Your task to perform on an android device: Open CNN.com Image 0: 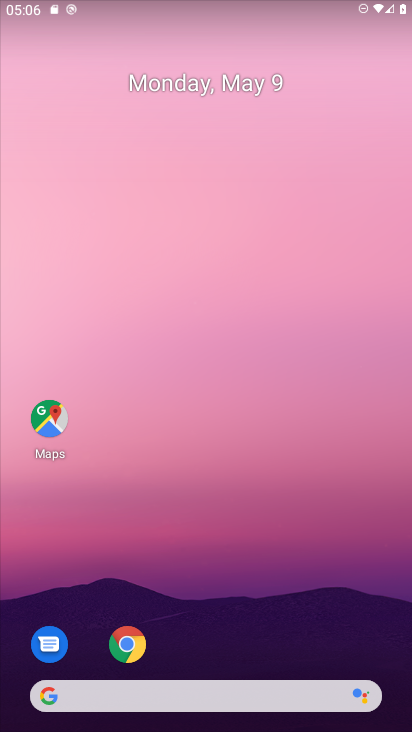
Step 0: click (127, 641)
Your task to perform on an android device: Open CNN.com Image 1: 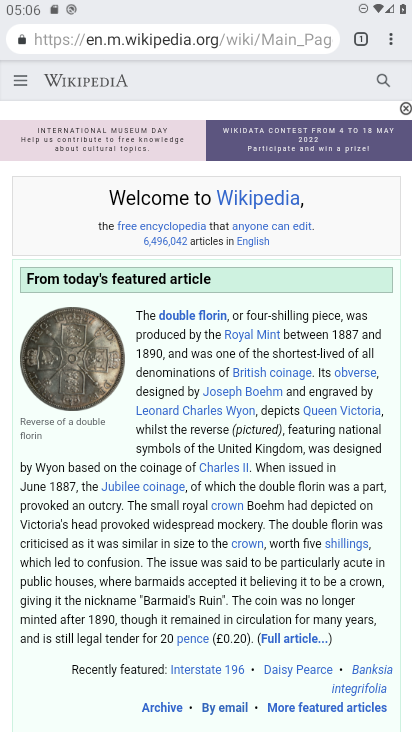
Step 1: click (291, 41)
Your task to perform on an android device: Open CNN.com Image 2: 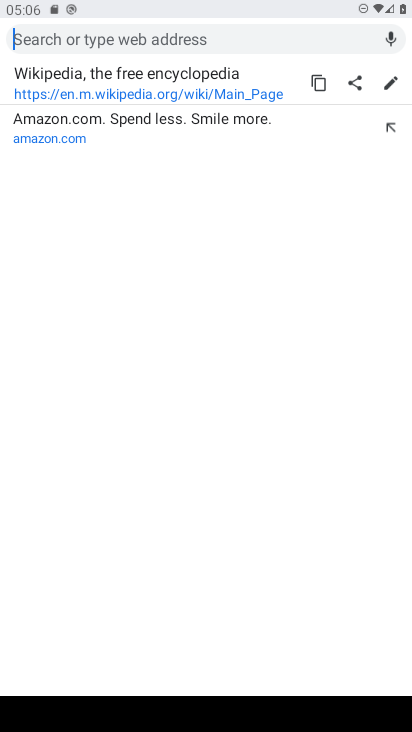
Step 2: type "CNN.com"
Your task to perform on an android device: Open CNN.com Image 3: 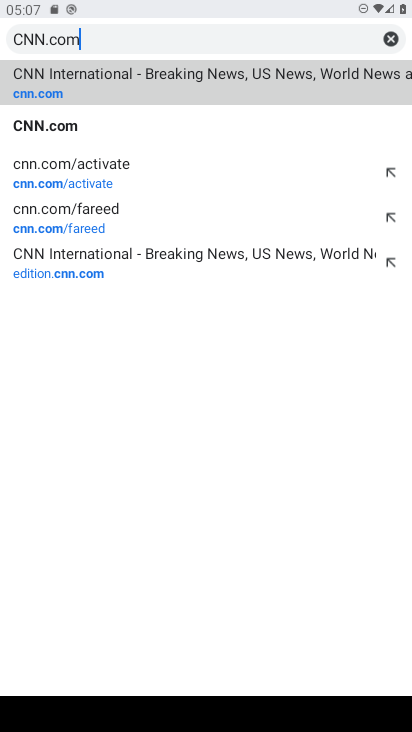
Step 3: click (68, 126)
Your task to perform on an android device: Open CNN.com Image 4: 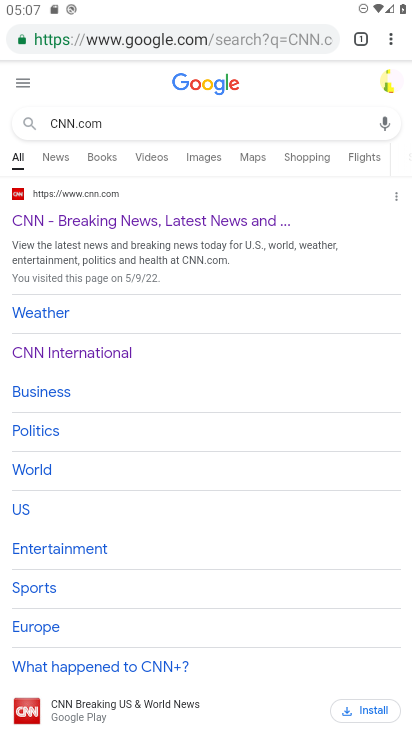
Step 4: click (28, 216)
Your task to perform on an android device: Open CNN.com Image 5: 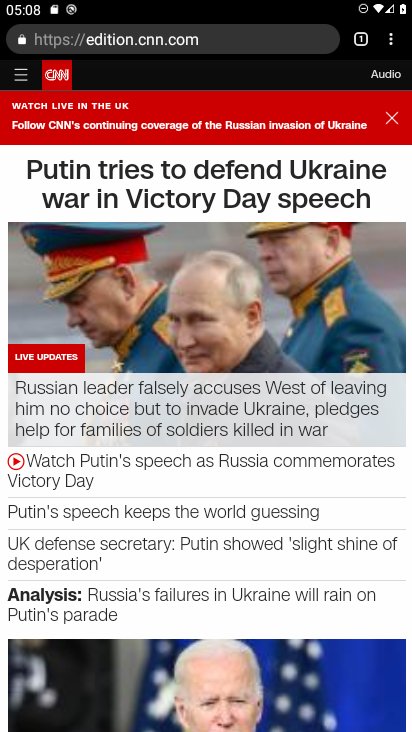
Step 5: task complete